Your task to perform on an android device: delete a single message in the gmail app Image 0: 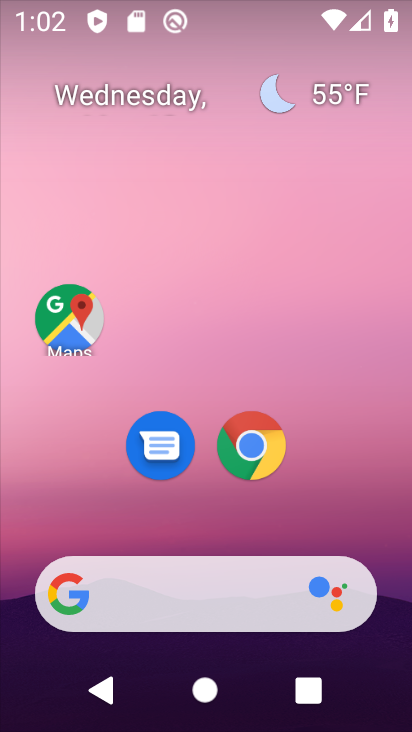
Step 0: drag from (76, 546) to (183, 102)
Your task to perform on an android device: delete a single message in the gmail app Image 1: 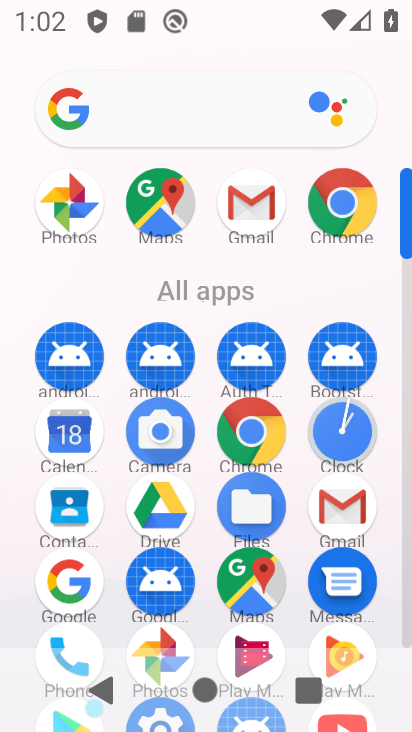
Step 1: click (356, 513)
Your task to perform on an android device: delete a single message in the gmail app Image 2: 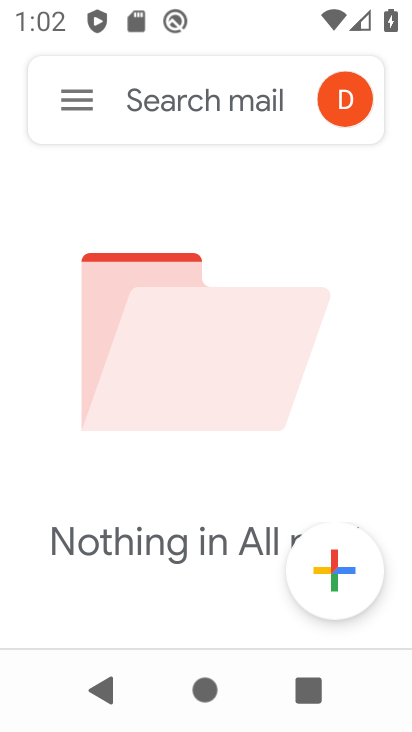
Step 2: click (84, 105)
Your task to perform on an android device: delete a single message in the gmail app Image 3: 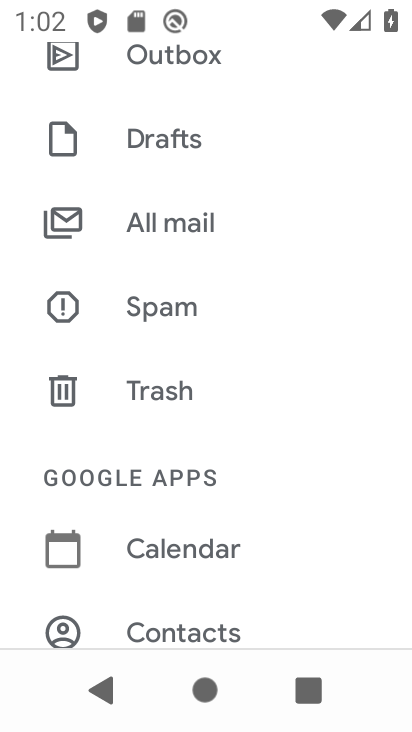
Step 3: click (204, 221)
Your task to perform on an android device: delete a single message in the gmail app Image 4: 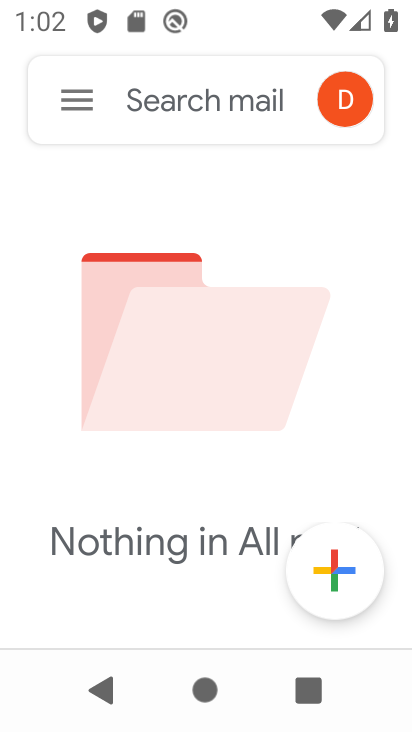
Step 4: task complete